Your task to perform on an android device: install app "Fetch Rewards" Image 0: 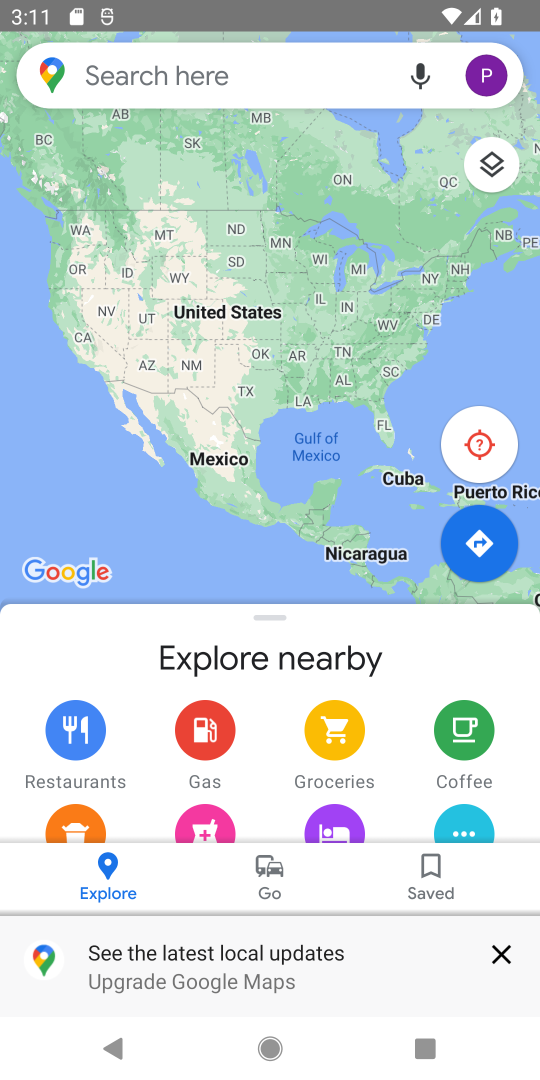
Step 0: press home button
Your task to perform on an android device: install app "Fetch Rewards" Image 1: 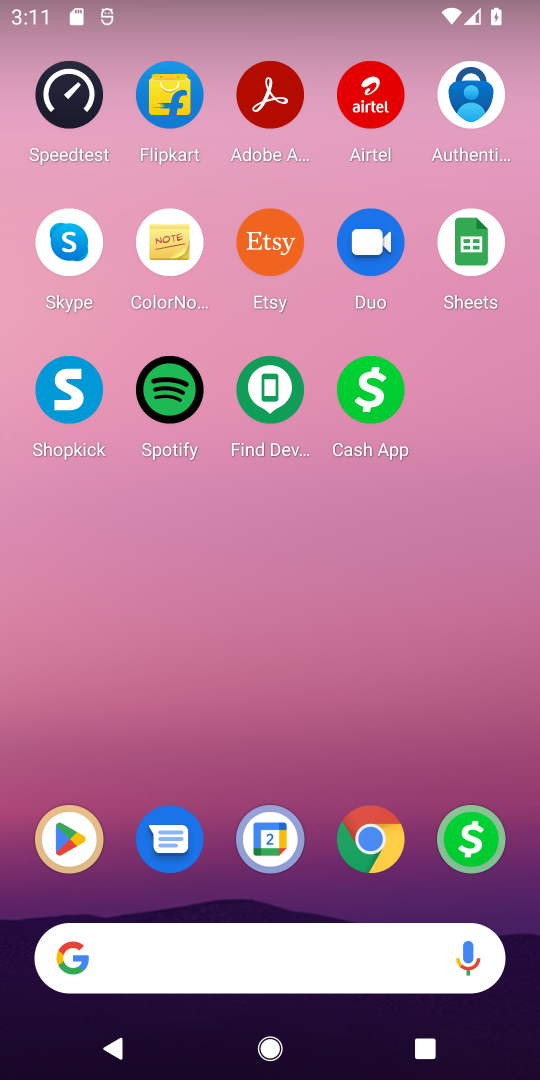
Step 1: click (89, 859)
Your task to perform on an android device: install app "Fetch Rewards" Image 2: 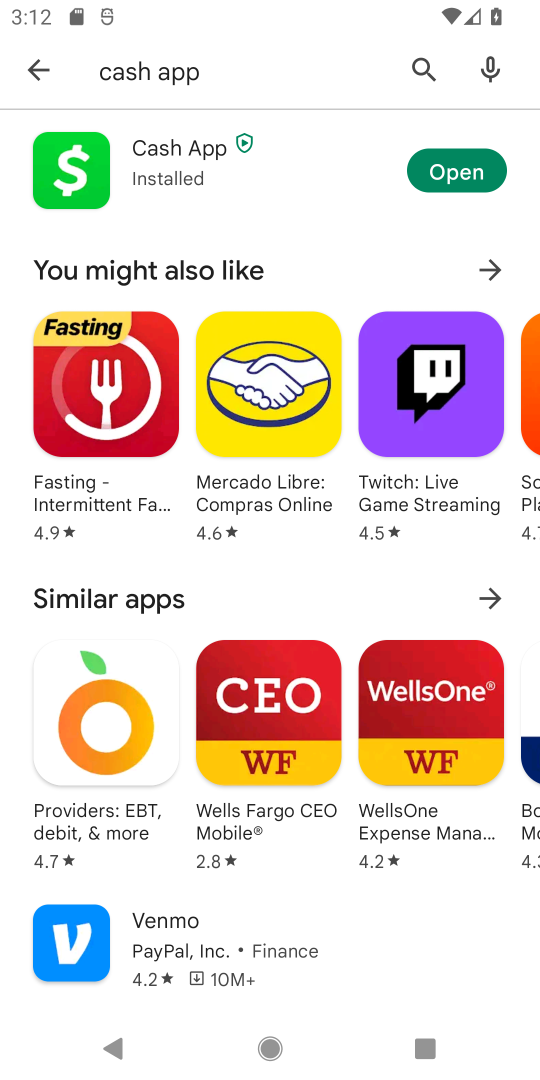
Step 2: click (403, 70)
Your task to perform on an android device: install app "Fetch Rewards" Image 3: 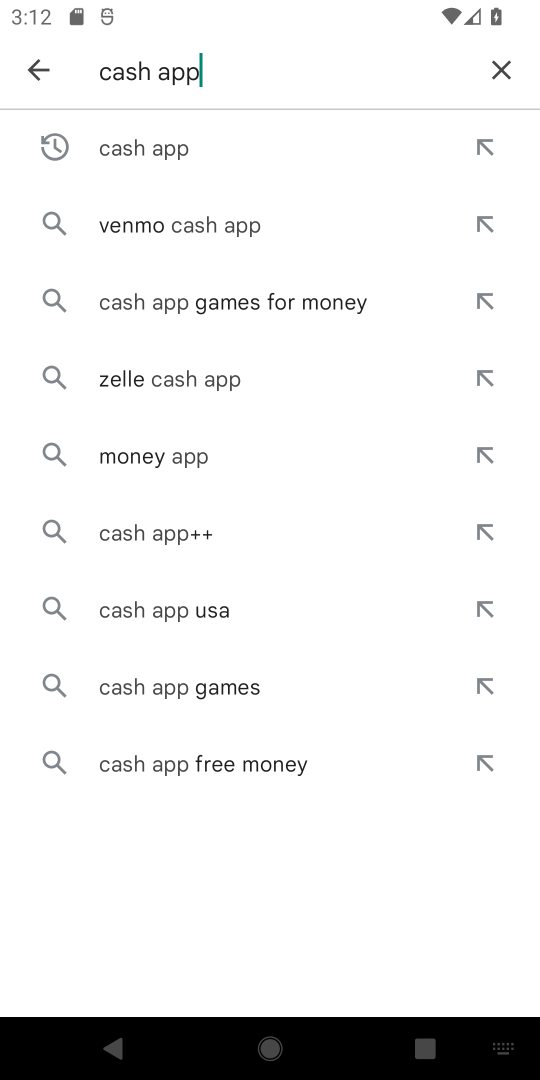
Step 3: click (490, 70)
Your task to perform on an android device: install app "Fetch Rewards" Image 4: 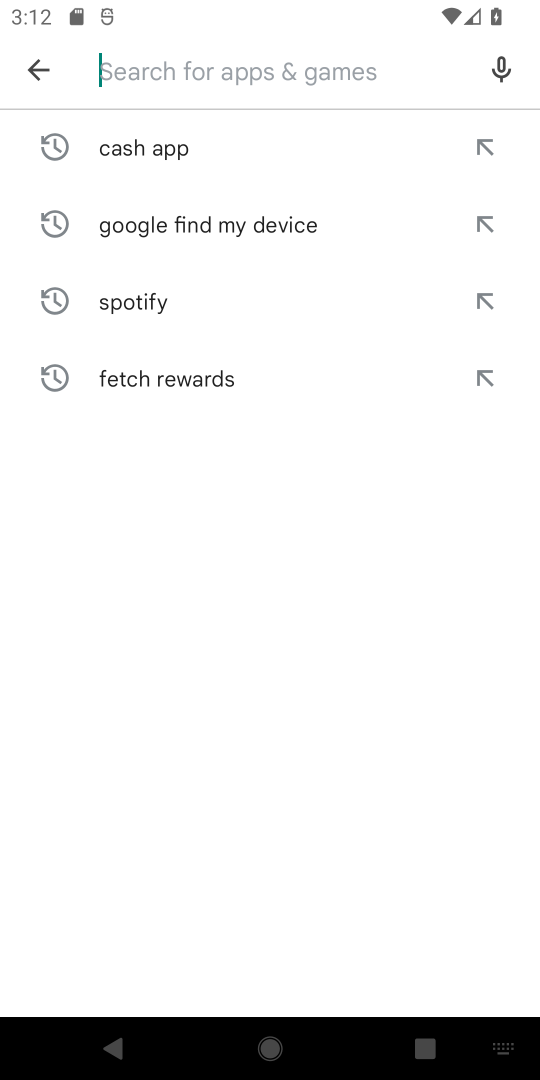
Step 4: type "fetch app"
Your task to perform on an android device: install app "Fetch Rewards" Image 5: 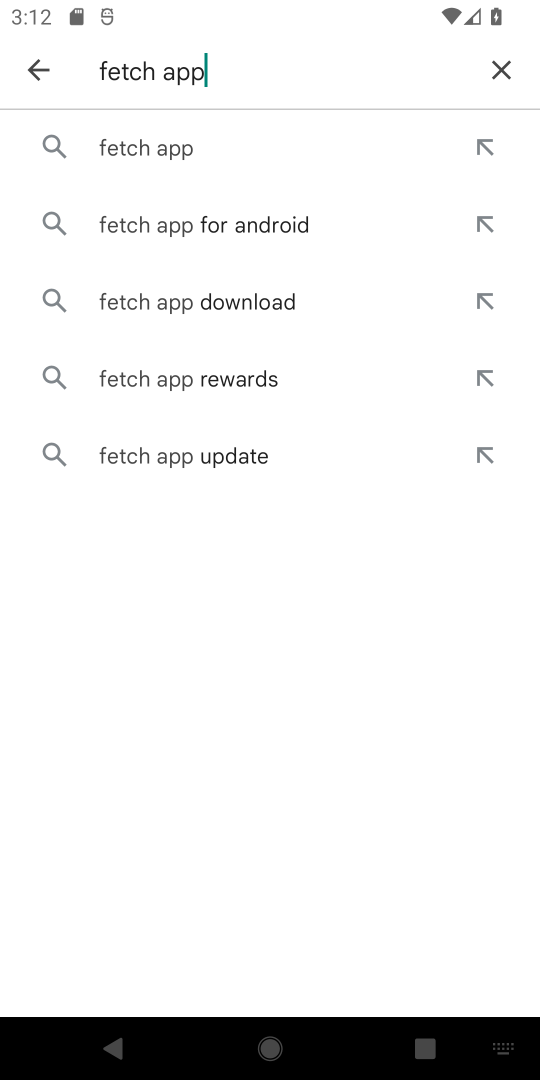
Step 5: click (213, 170)
Your task to perform on an android device: install app "Fetch Rewards" Image 6: 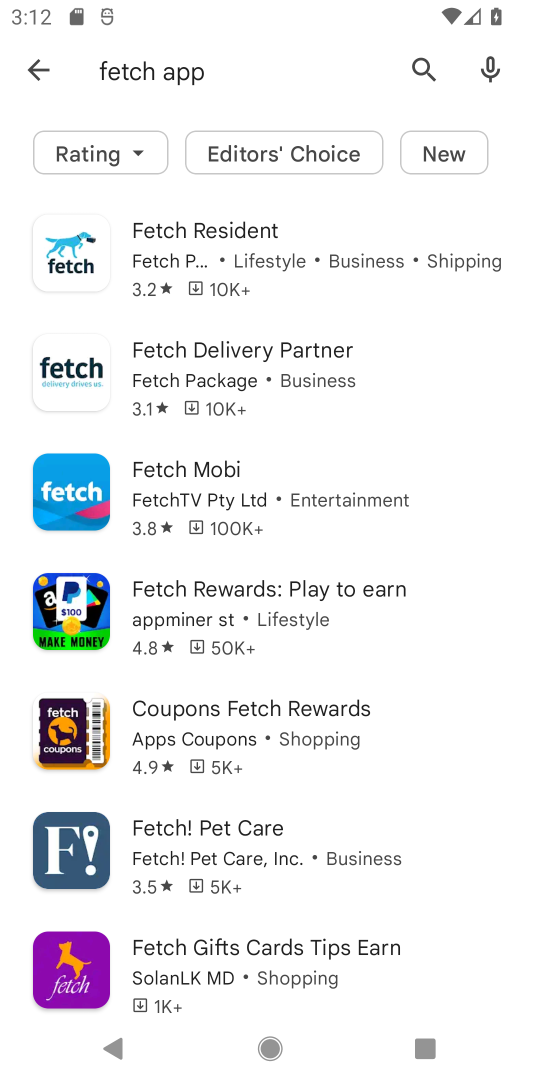
Step 6: task complete